Your task to perform on an android device: show emergency info Image 0: 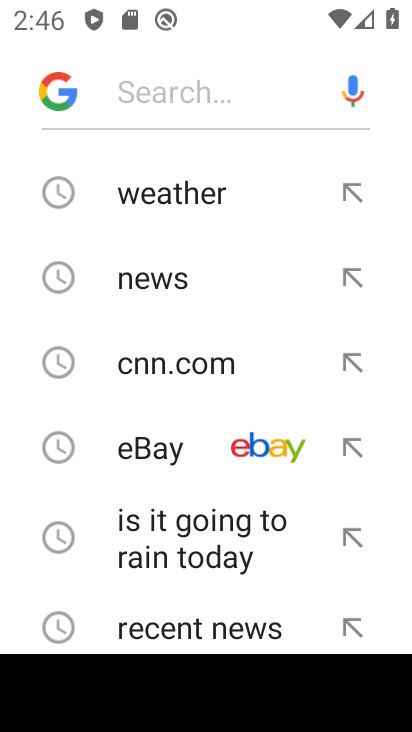
Step 0: press home button
Your task to perform on an android device: show emergency info Image 1: 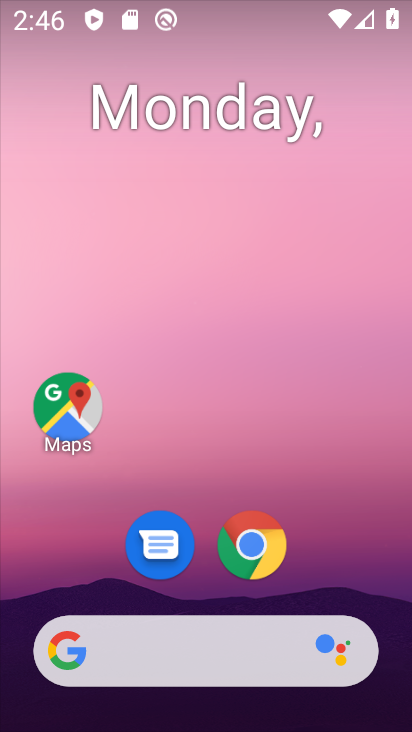
Step 1: drag from (238, 485) to (350, 2)
Your task to perform on an android device: show emergency info Image 2: 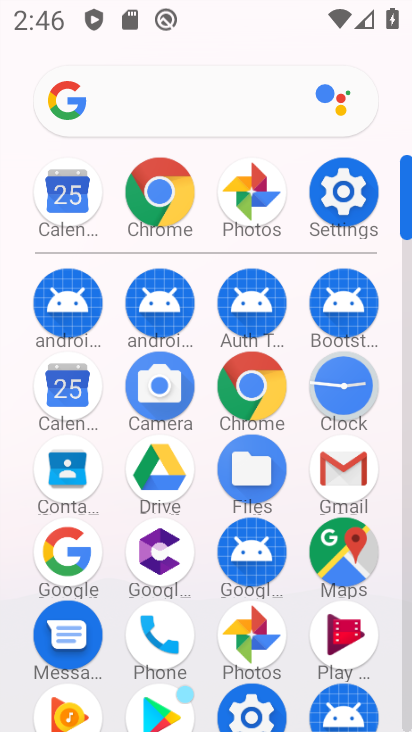
Step 2: click (332, 181)
Your task to perform on an android device: show emergency info Image 3: 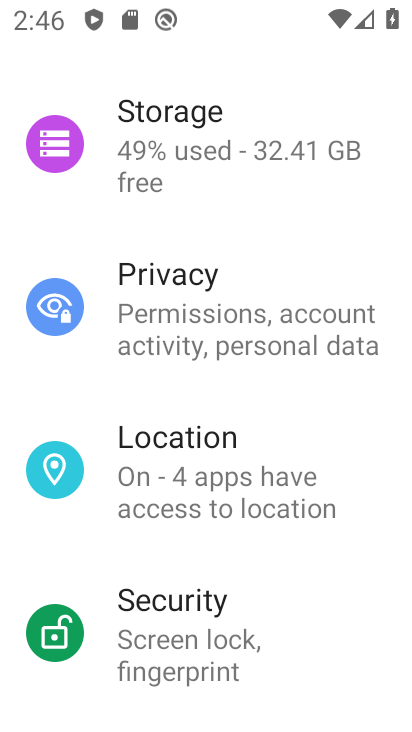
Step 3: drag from (214, 498) to (311, 75)
Your task to perform on an android device: show emergency info Image 4: 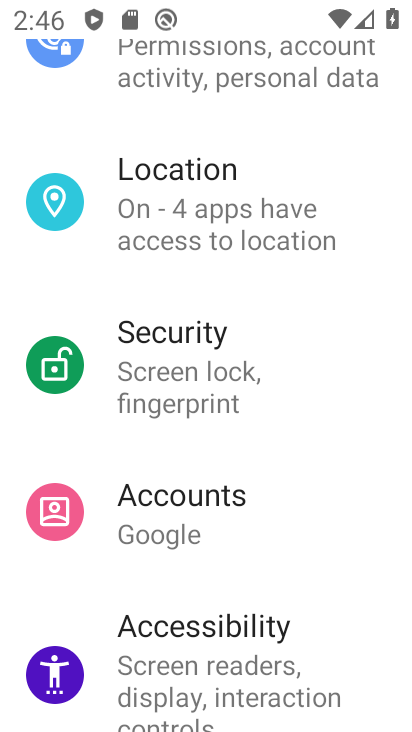
Step 4: drag from (170, 630) to (269, 102)
Your task to perform on an android device: show emergency info Image 5: 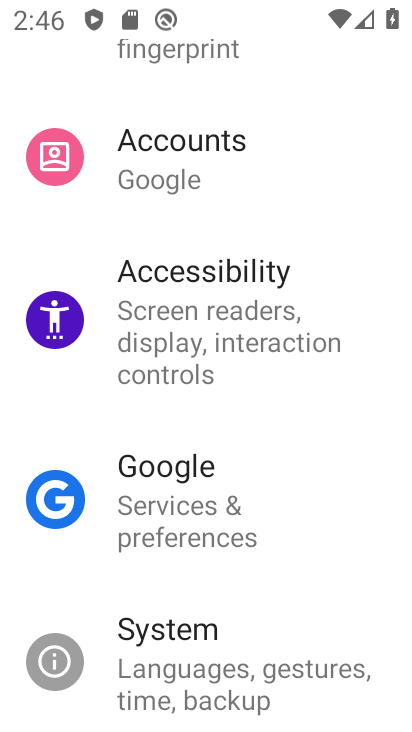
Step 5: drag from (185, 535) to (284, 61)
Your task to perform on an android device: show emergency info Image 6: 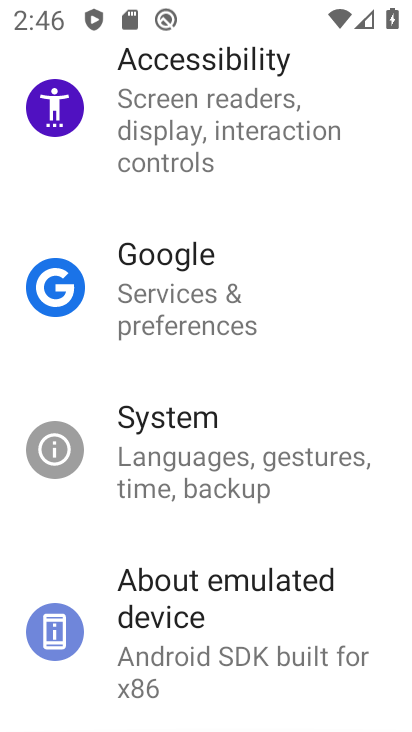
Step 6: drag from (211, 603) to (309, 0)
Your task to perform on an android device: show emergency info Image 7: 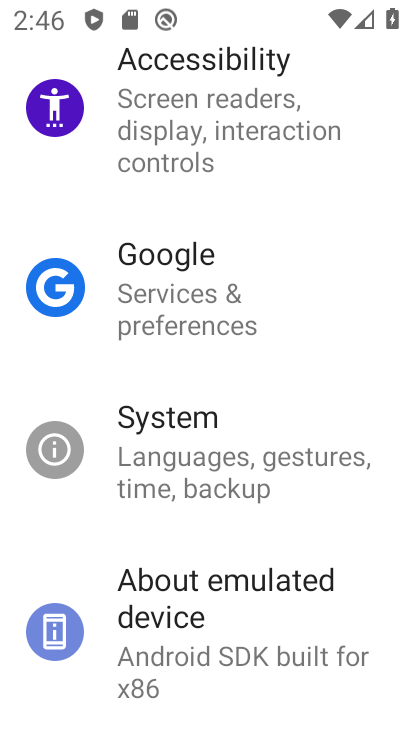
Step 7: click (224, 599)
Your task to perform on an android device: show emergency info Image 8: 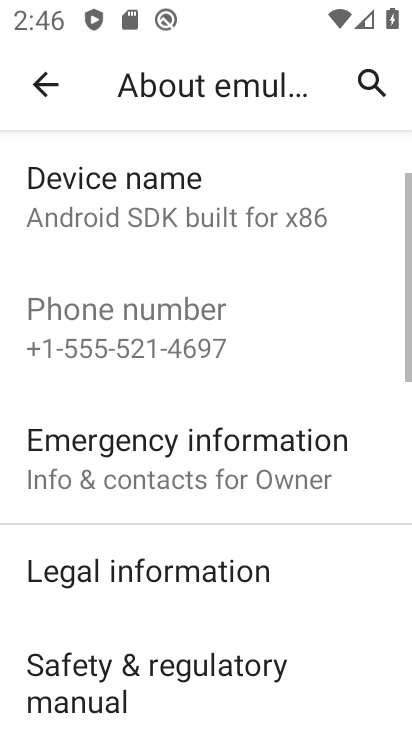
Step 8: click (160, 468)
Your task to perform on an android device: show emergency info Image 9: 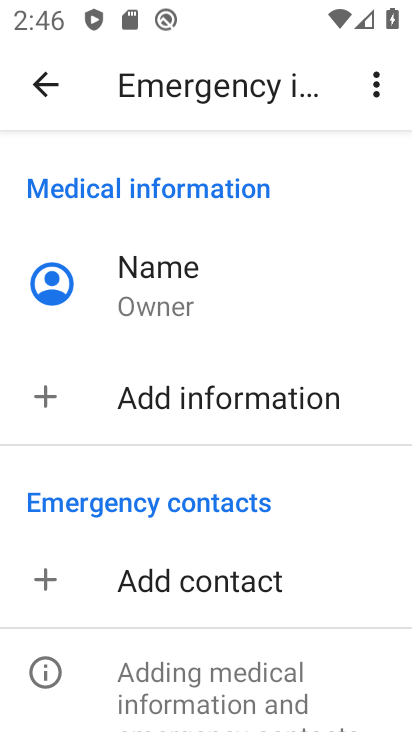
Step 9: task complete